Your task to perform on an android device: turn on the 24-hour format for clock Image 0: 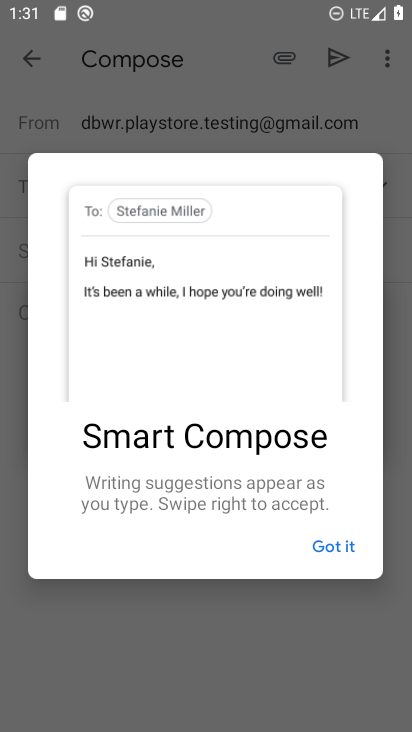
Step 0: press home button
Your task to perform on an android device: turn on the 24-hour format for clock Image 1: 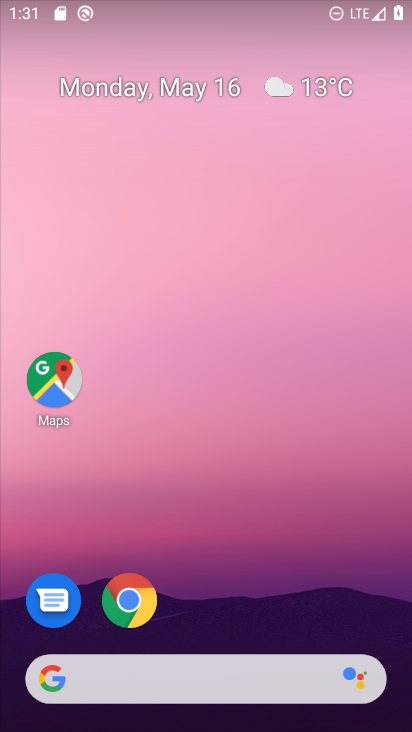
Step 1: drag from (218, 632) to (271, 72)
Your task to perform on an android device: turn on the 24-hour format for clock Image 2: 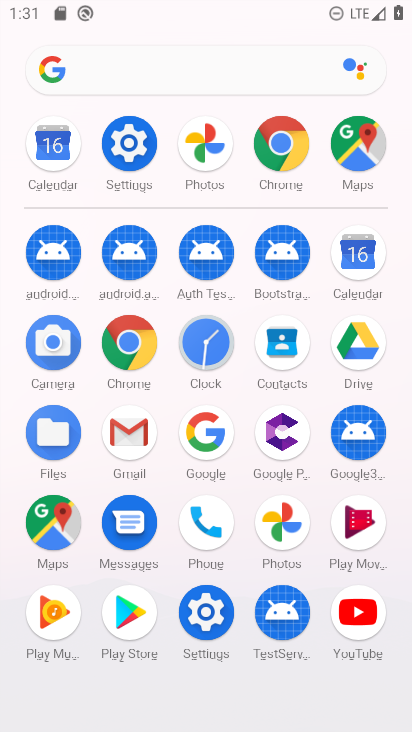
Step 2: click (198, 336)
Your task to perform on an android device: turn on the 24-hour format for clock Image 3: 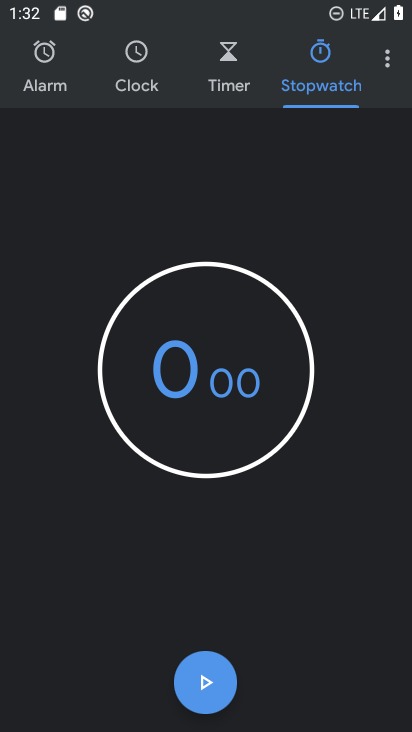
Step 3: click (390, 55)
Your task to perform on an android device: turn on the 24-hour format for clock Image 4: 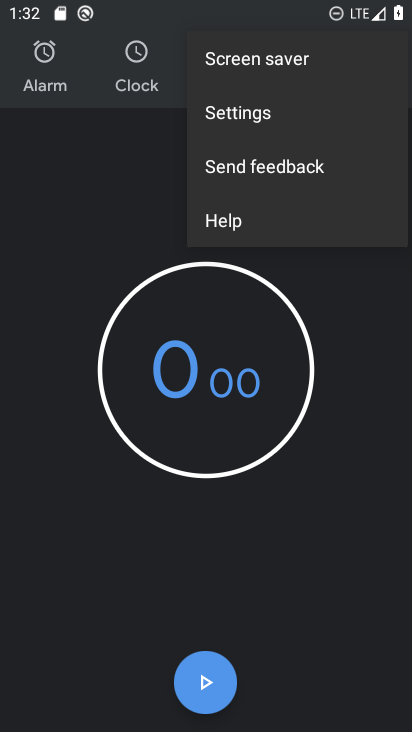
Step 4: click (287, 108)
Your task to perform on an android device: turn on the 24-hour format for clock Image 5: 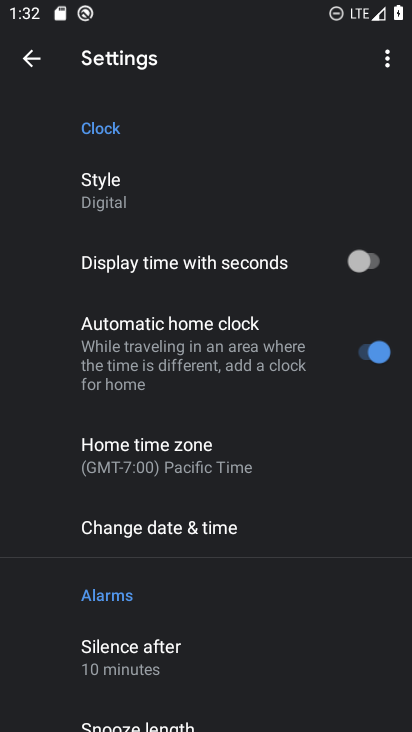
Step 5: click (256, 527)
Your task to perform on an android device: turn on the 24-hour format for clock Image 6: 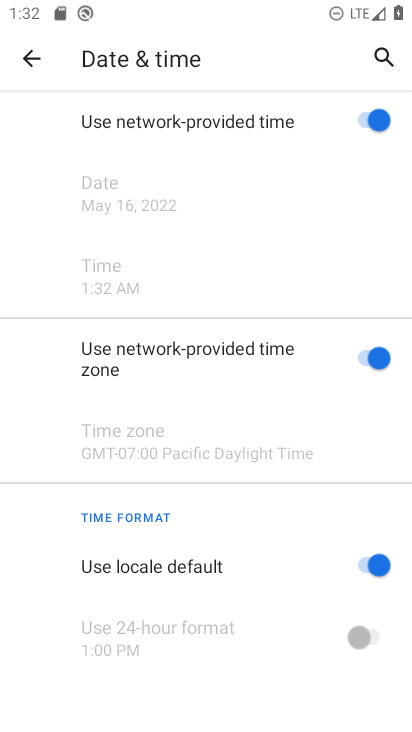
Step 6: click (369, 561)
Your task to perform on an android device: turn on the 24-hour format for clock Image 7: 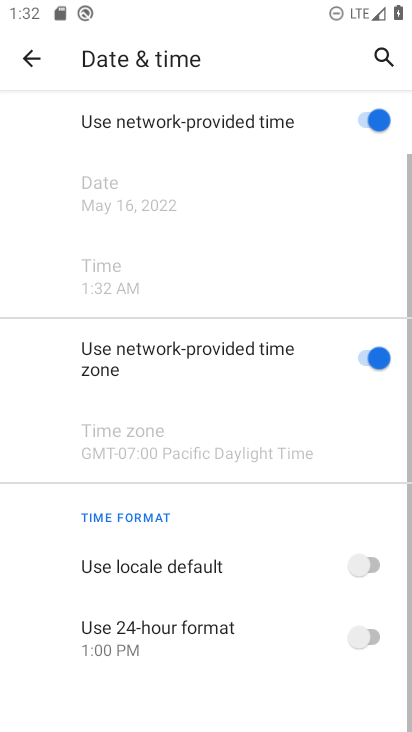
Step 7: click (372, 633)
Your task to perform on an android device: turn on the 24-hour format for clock Image 8: 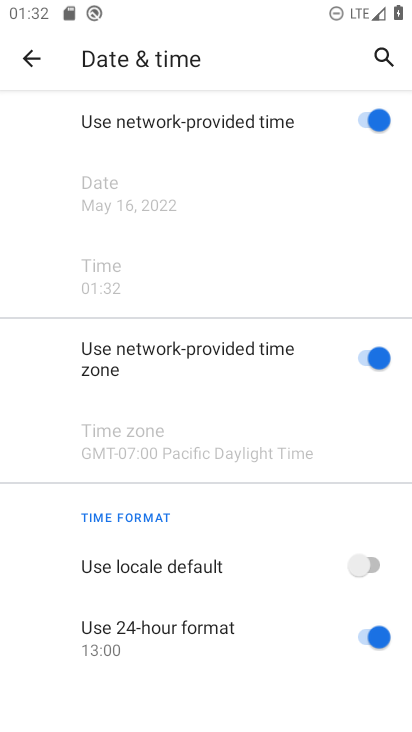
Step 8: task complete